Your task to perform on an android device: turn on notifications settings in the gmail app Image 0: 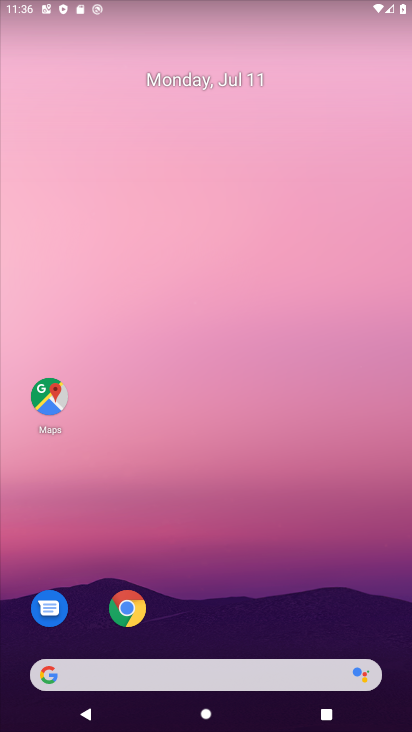
Step 0: drag from (230, 4) to (325, 494)
Your task to perform on an android device: turn on notifications settings in the gmail app Image 1: 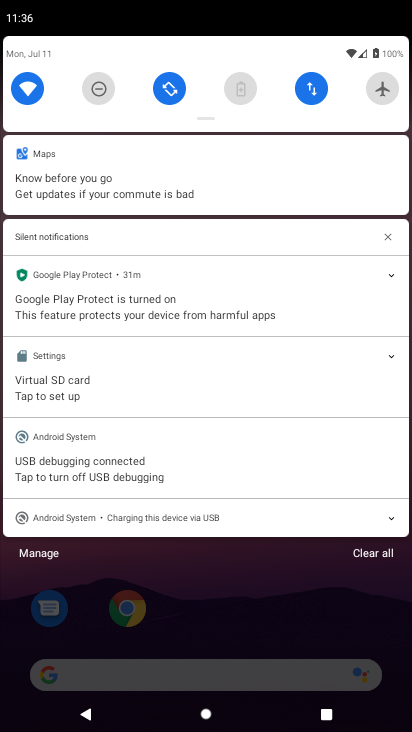
Step 1: drag from (195, 64) to (252, 442)
Your task to perform on an android device: turn on notifications settings in the gmail app Image 2: 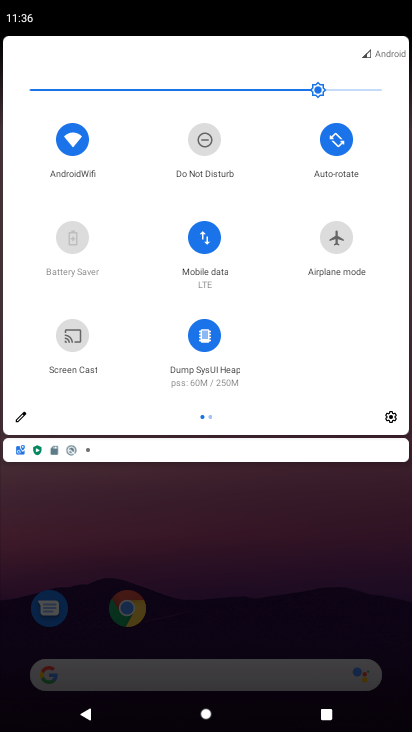
Step 2: click (381, 413)
Your task to perform on an android device: turn on notifications settings in the gmail app Image 3: 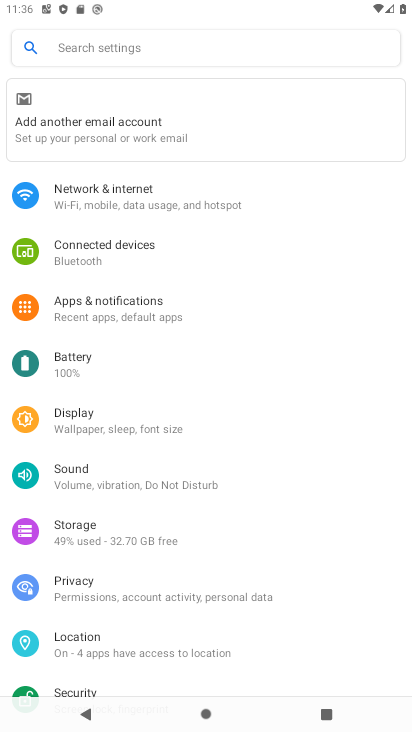
Step 3: click (184, 316)
Your task to perform on an android device: turn on notifications settings in the gmail app Image 4: 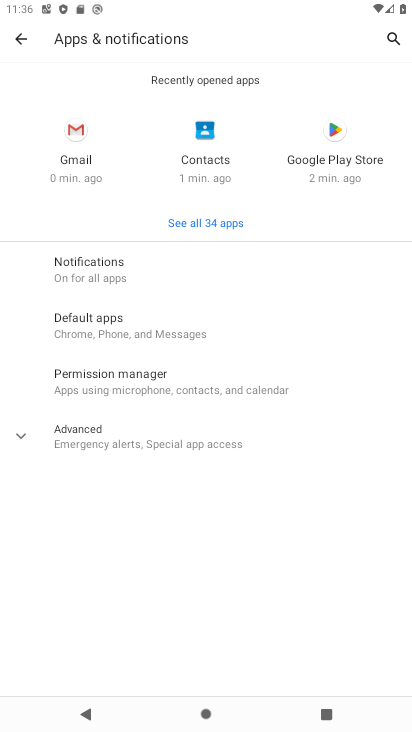
Step 4: click (129, 256)
Your task to perform on an android device: turn on notifications settings in the gmail app Image 5: 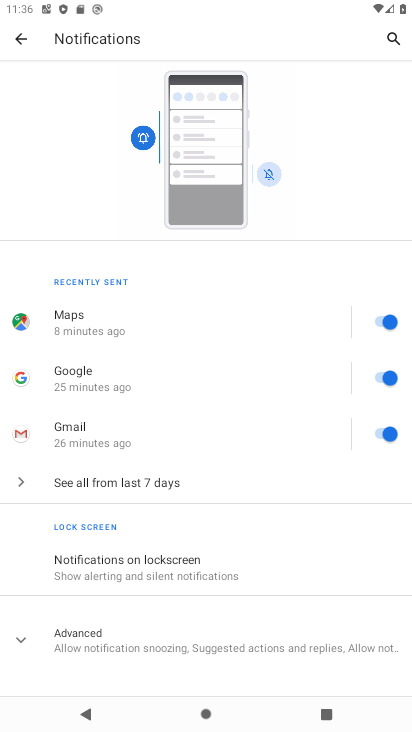
Step 5: click (21, 33)
Your task to perform on an android device: turn on notifications settings in the gmail app Image 6: 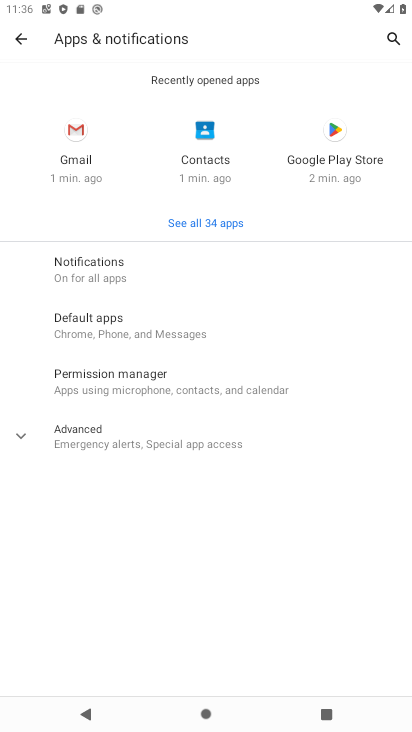
Step 6: click (94, 162)
Your task to perform on an android device: turn on notifications settings in the gmail app Image 7: 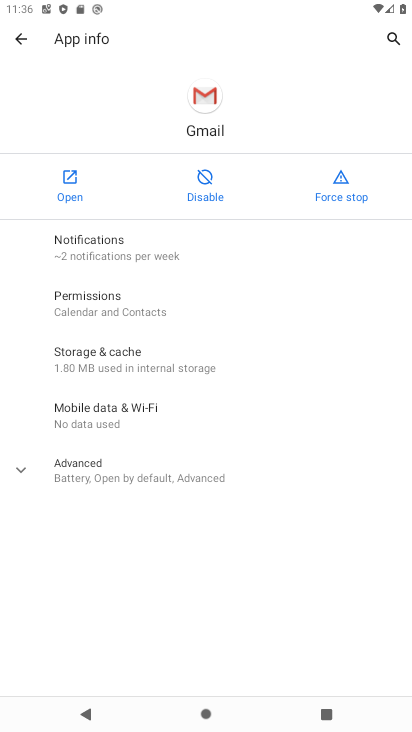
Step 7: click (138, 233)
Your task to perform on an android device: turn on notifications settings in the gmail app Image 8: 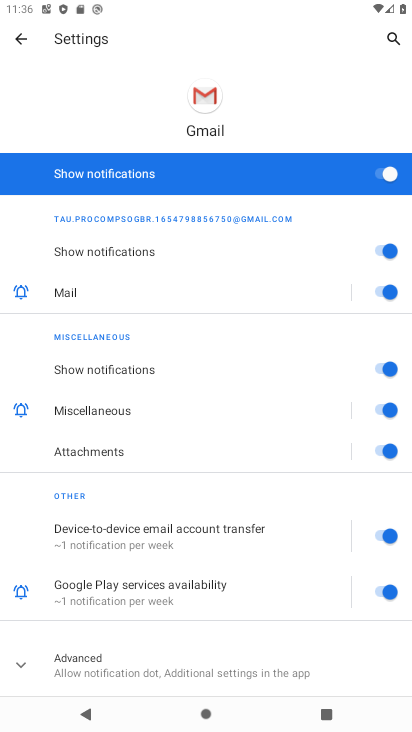
Step 8: task complete